Your task to perform on an android device: Open location settings Image 0: 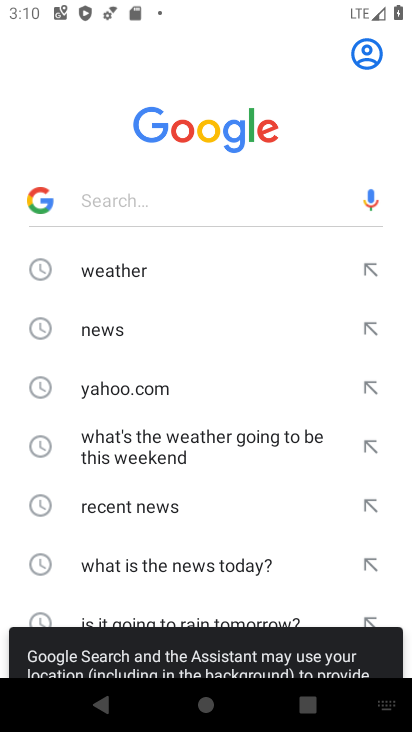
Step 0: press home button
Your task to perform on an android device: Open location settings Image 1: 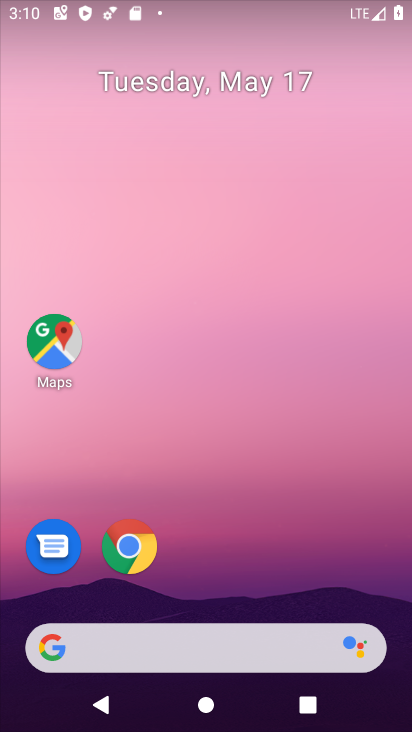
Step 1: drag from (228, 468) to (202, 79)
Your task to perform on an android device: Open location settings Image 2: 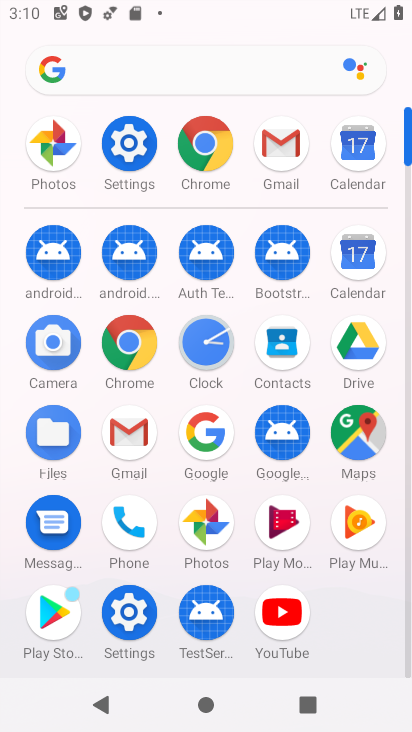
Step 2: click (136, 150)
Your task to perform on an android device: Open location settings Image 3: 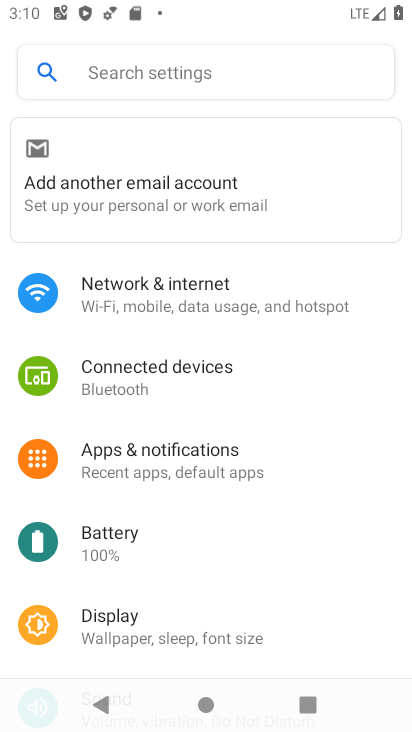
Step 3: drag from (195, 528) to (230, 98)
Your task to perform on an android device: Open location settings Image 4: 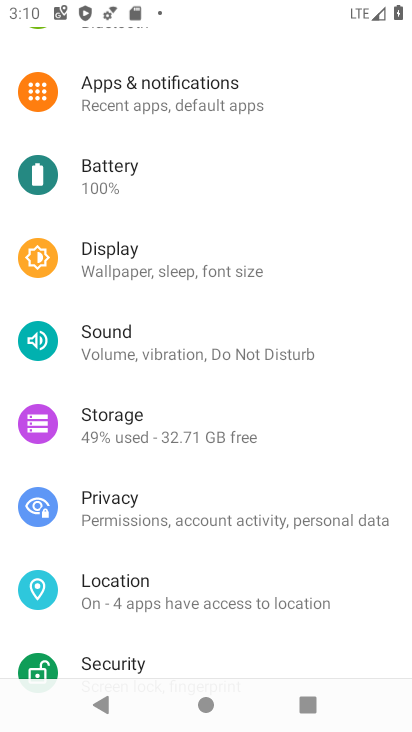
Step 4: click (152, 573)
Your task to perform on an android device: Open location settings Image 5: 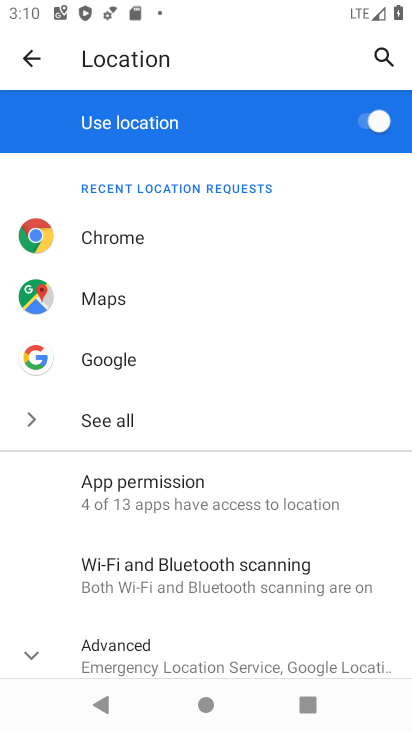
Step 5: task complete